Your task to perform on an android device: Go to battery settings Image 0: 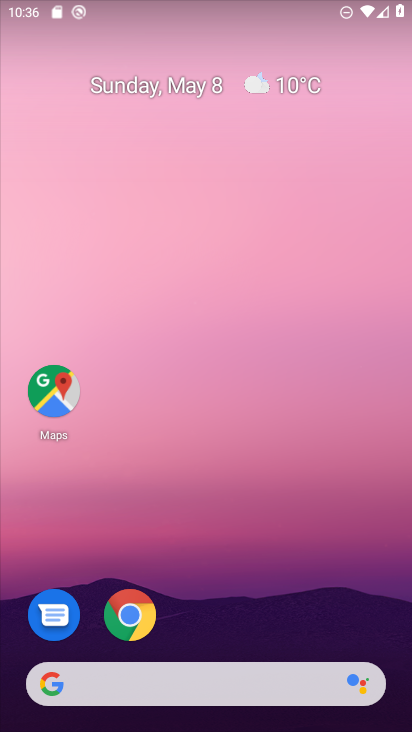
Step 0: drag from (238, 660) to (224, 86)
Your task to perform on an android device: Go to battery settings Image 1: 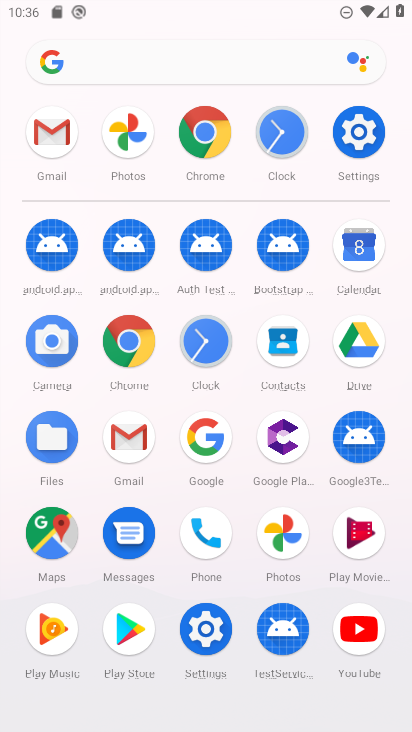
Step 1: click (362, 125)
Your task to perform on an android device: Go to battery settings Image 2: 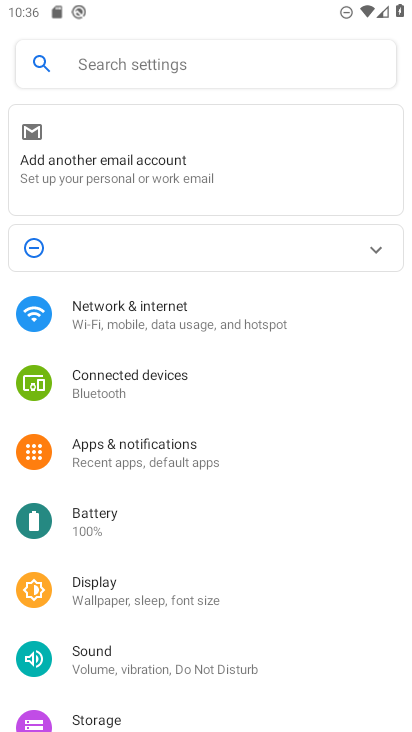
Step 2: click (144, 532)
Your task to perform on an android device: Go to battery settings Image 3: 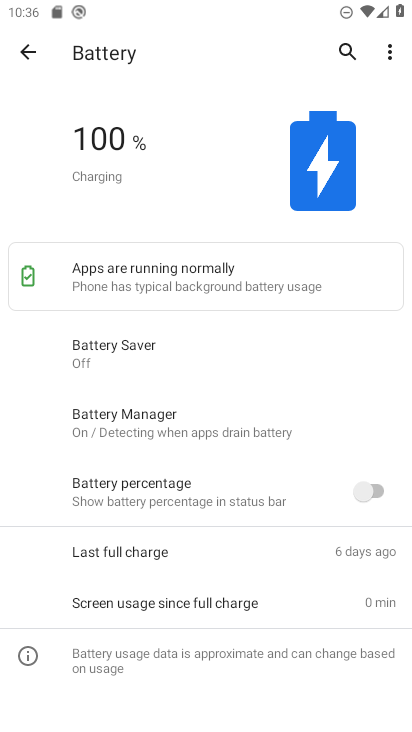
Step 3: task complete